Your task to perform on an android device: View the shopping cart on costco.com. Search for razer kraken on costco.com, select the first entry, add it to the cart, then select checkout. Image 0: 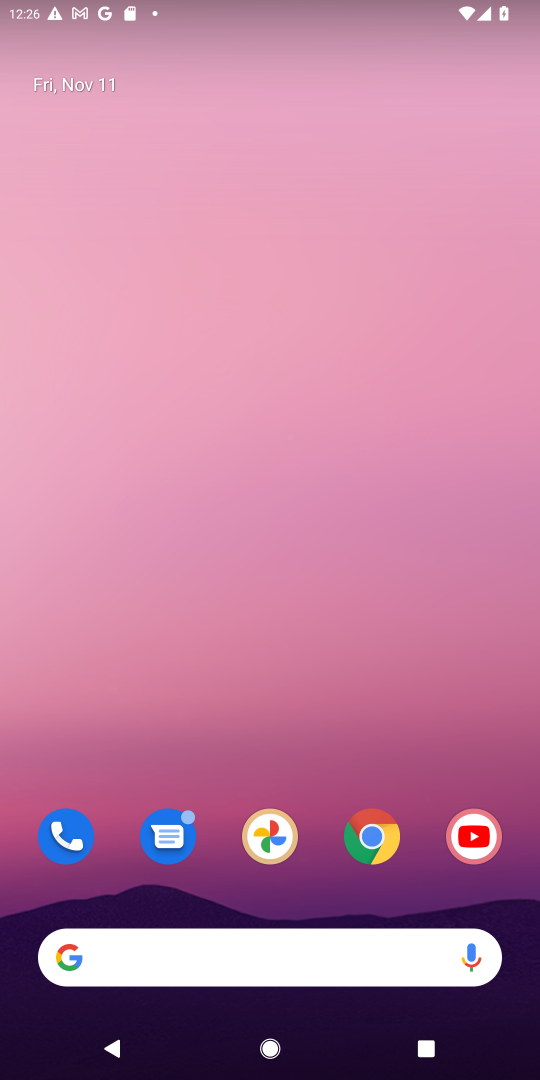
Step 0: click (300, 967)
Your task to perform on an android device: View the shopping cart on costco.com. Search for razer kraken on costco.com, select the first entry, add it to the cart, then select checkout. Image 1: 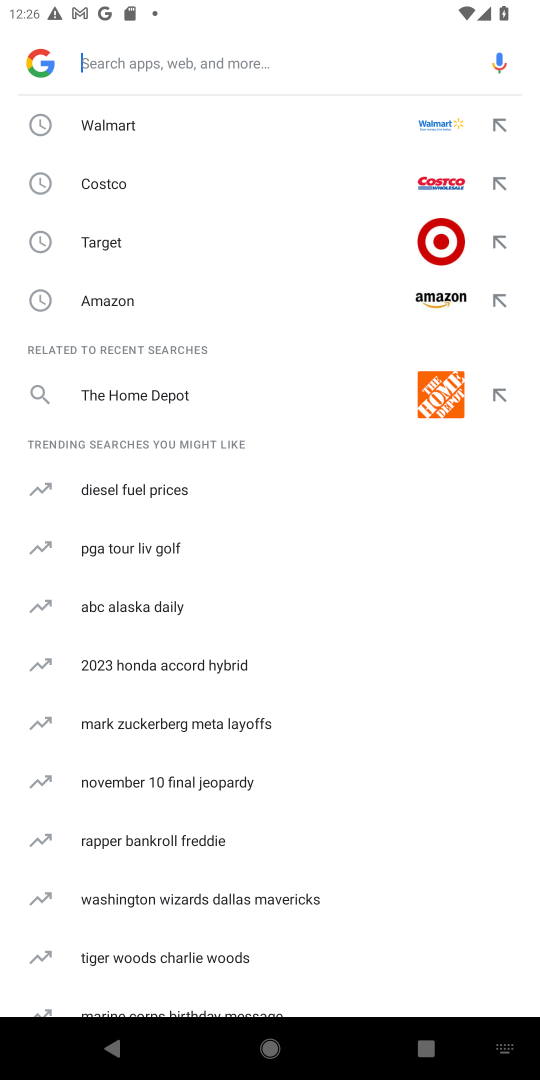
Step 1: click (228, 186)
Your task to perform on an android device: View the shopping cart on costco.com. Search for razer kraken on costco.com, select the first entry, add it to the cart, then select checkout. Image 2: 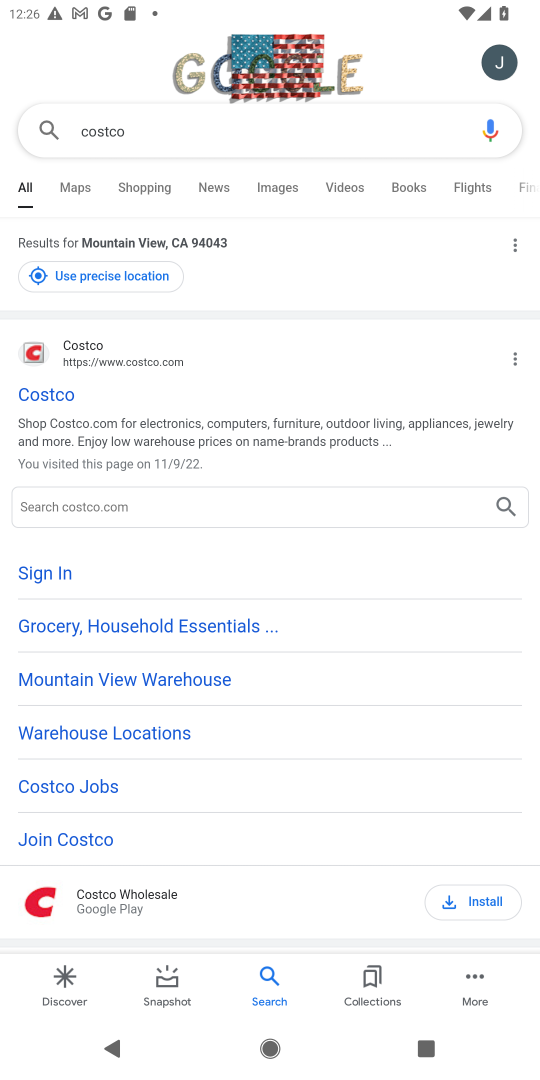
Step 2: click (61, 392)
Your task to perform on an android device: View the shopping cart on costco.com. Search for razer kraken on costco.com, select the first entry, add it to the cart, then select checkout. Image 3: 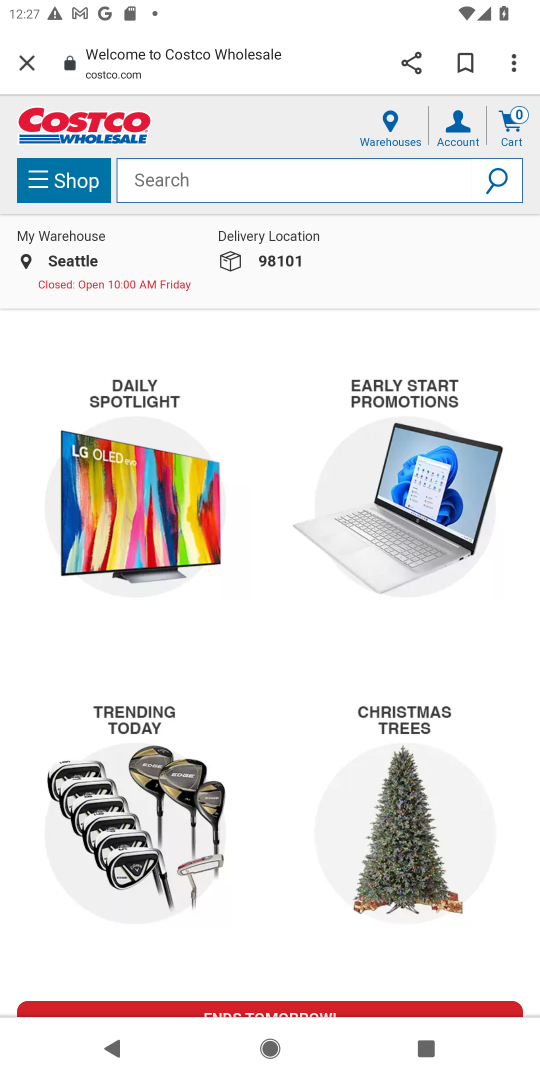
Step 3: click (504, 125)
Your task to perform on an android device: View the shopping cart on costco.com. Search for razer kraken on costco.com, select the first entry, add it to the cart, then select checkout. Image 4: 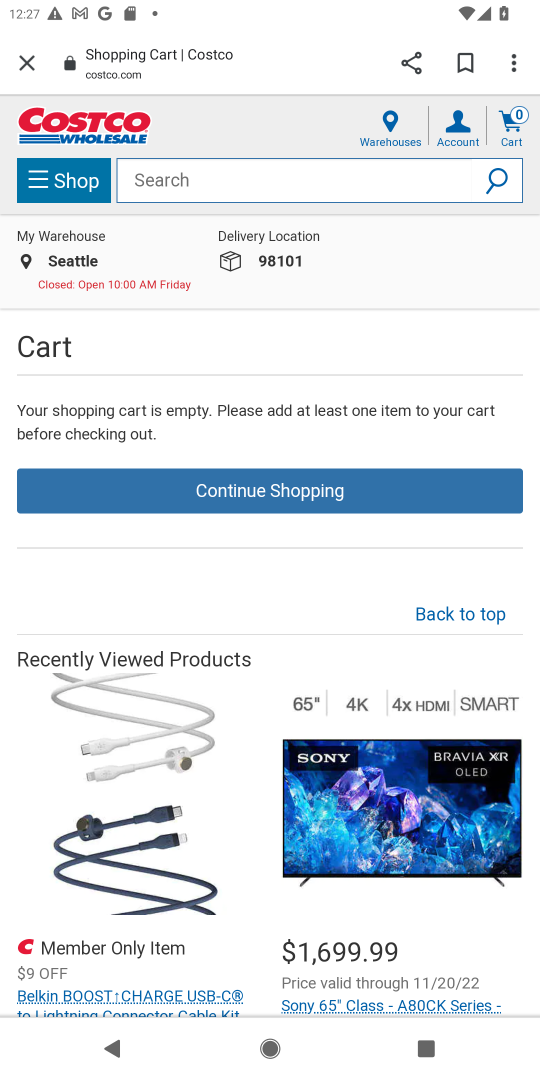
Step 4: click (391, 178)
Your task to perform on an android device: View the shopping cart on costco.com. Search for razer kraken on costco.com, select the first entry, add it to the cart, then select checkout. Image 5: 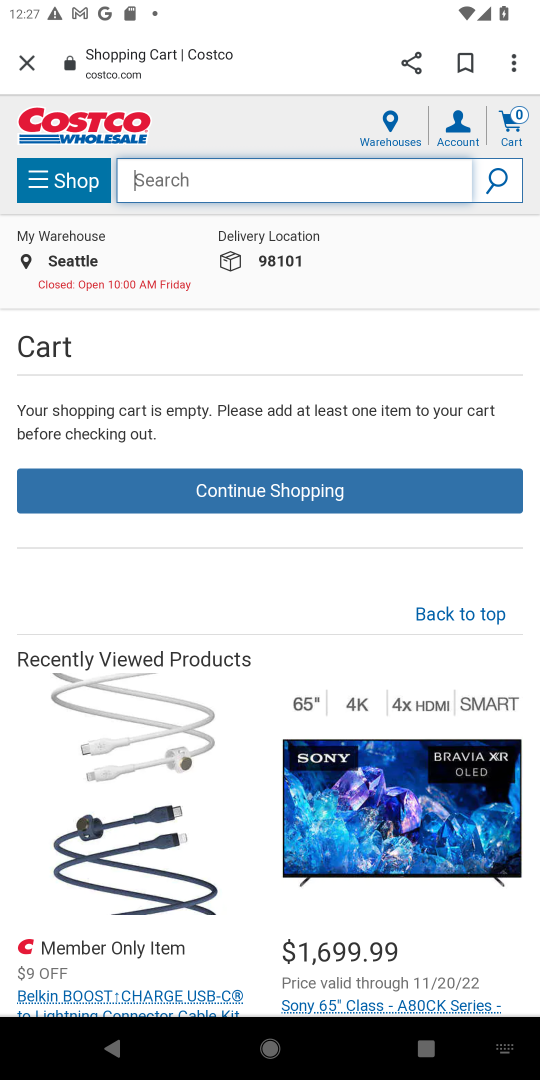
Step 5: click (303, 167)
Your task to perform on an android device: View the shopping cart on costco.com. Search for razer kraken on costco.com, select the first entry, add it to the cart, then select checkout. Image 6: 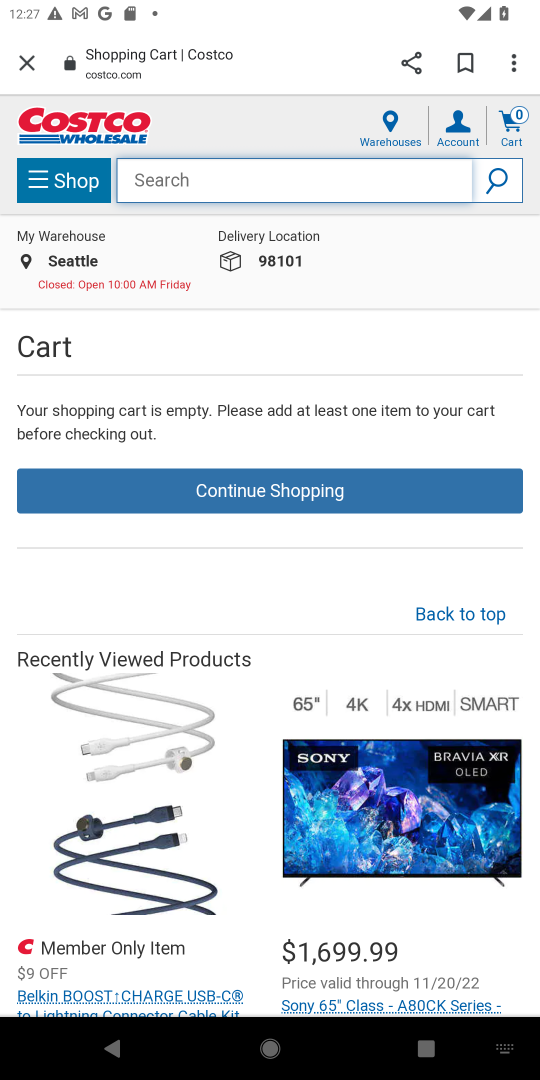
Step 6: type "razer kraken"
Your task to perform on an android device: View the shopping cart on costco.com. Search for razer kraken on costco.com, select the first entry, add it to the cart, then select checkout. Image 7: 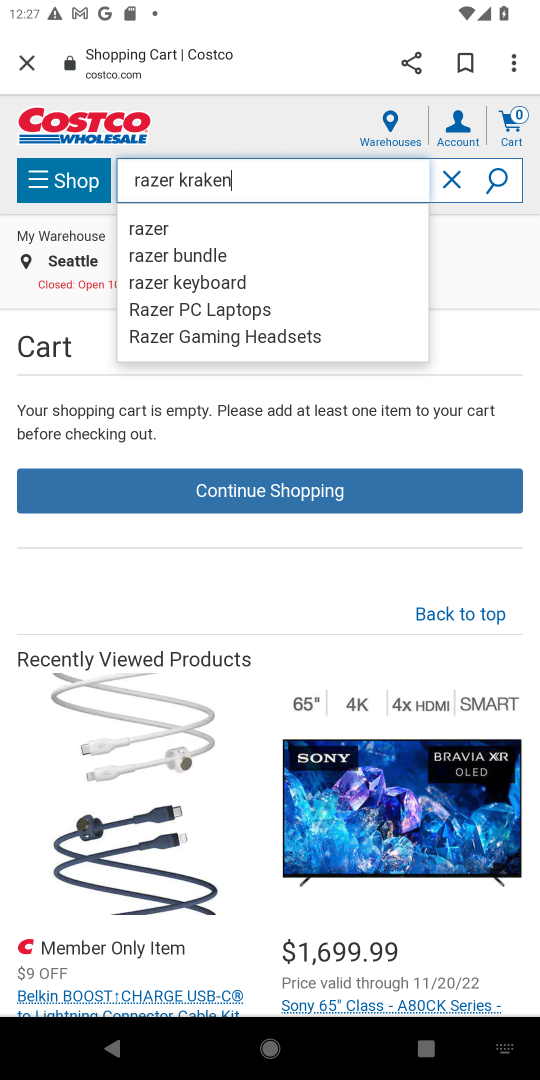
Step 7: click (149, 233)
Your task to perform on an android device: View the shopping cart on costco.com. Search for razer kraken on costco.com, select the first entry, add it to the cart, then select checkout. Image 8: 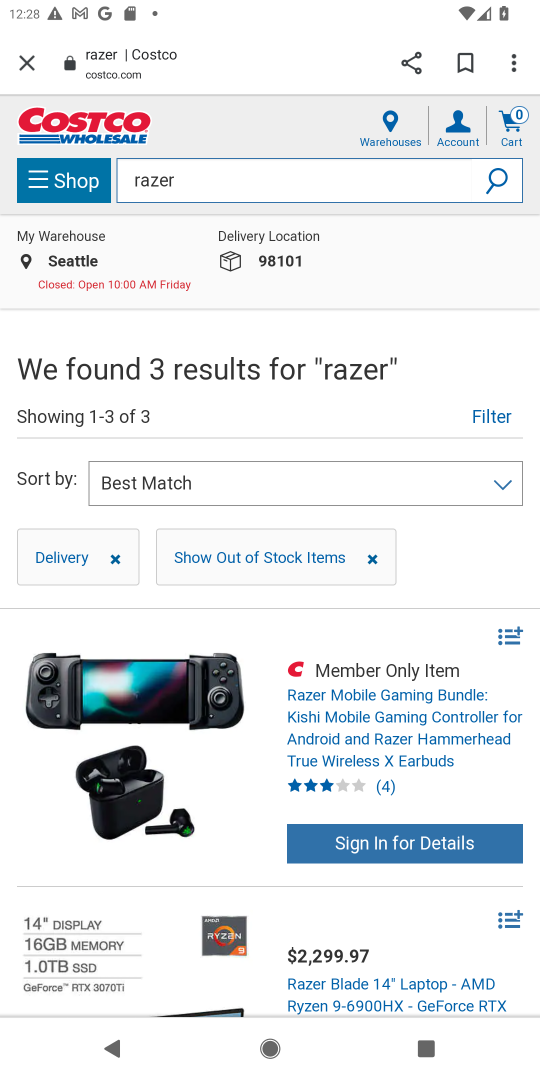
Step 8: drag from (282, 762) to (284, 611)
Your task to perform on an android device: View the shopping cart on costco.com. Search for razer kraken on costco.com, select the first entry, add it to the cart, then select checkout. Image 9: 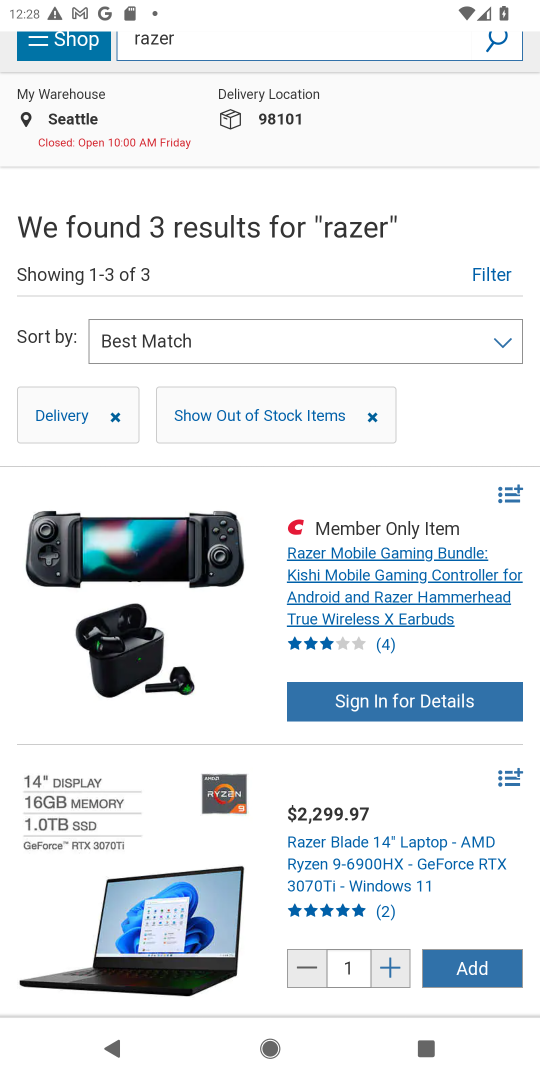
Step 9: click (474, 978)
Your task to perform on an android device: View the shopping cart on costco.com. Search for razer kraken on costco.com, select the first entry, add it to the cart, then select checkout. Image 10: 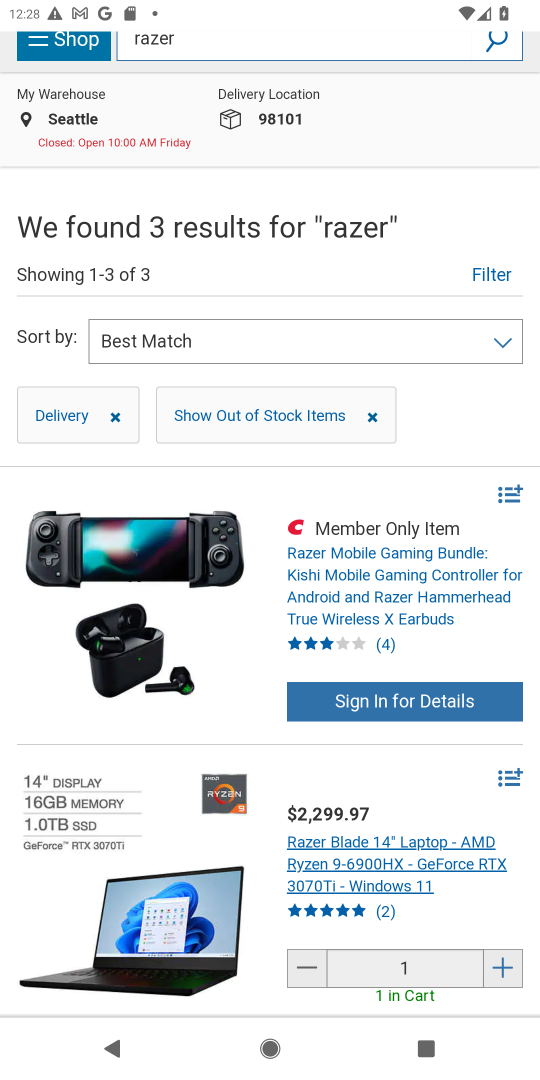
Step 10: drag from (247, 322) to (238, 389)
Your task to perform on an android device: View the shopping cart on costco.com. Search for razer kraken on costco.com, select the first entry, add it to the cart, then select checkout. Image 11: 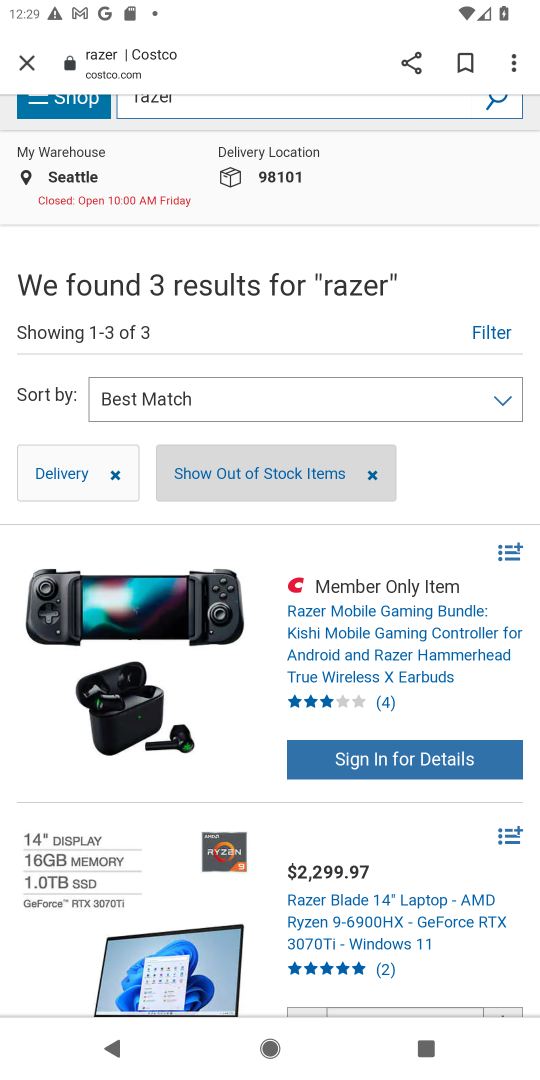
Step 11: click (153, 857)
Your task to perform on an android device: View the shopping cart on costco.com. Search for razer kraken on costco.com, select the first entry, add it to the cart, then select checkout. Image 12: 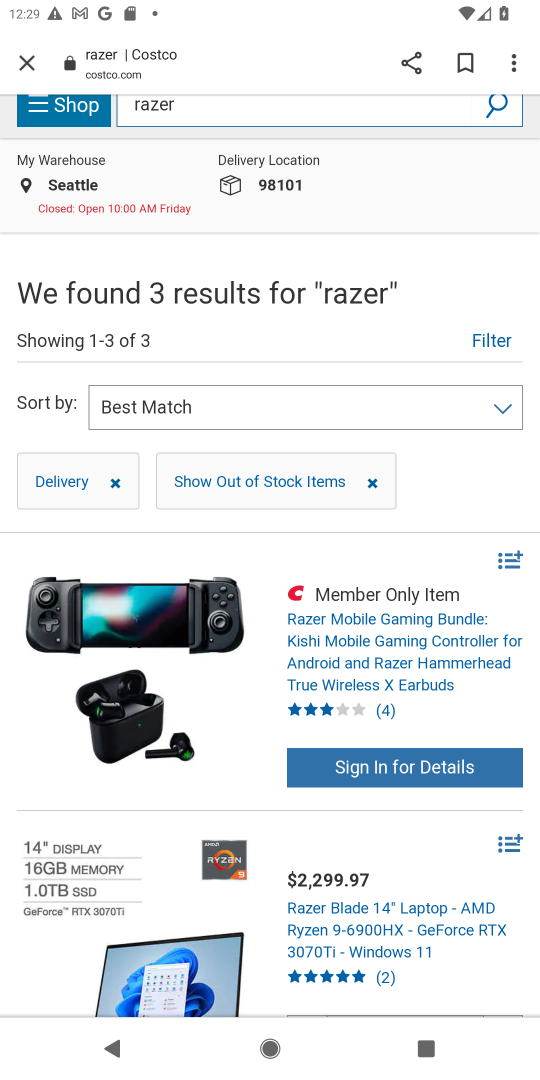
Step 12: drag from (368, 401) to (353, 713)
Your task to perform on an android device: View the shopping cart on costco.com. Search for razer kraken on costco.com, select the first entry, add it to the cart, then select checkout. Image 13: 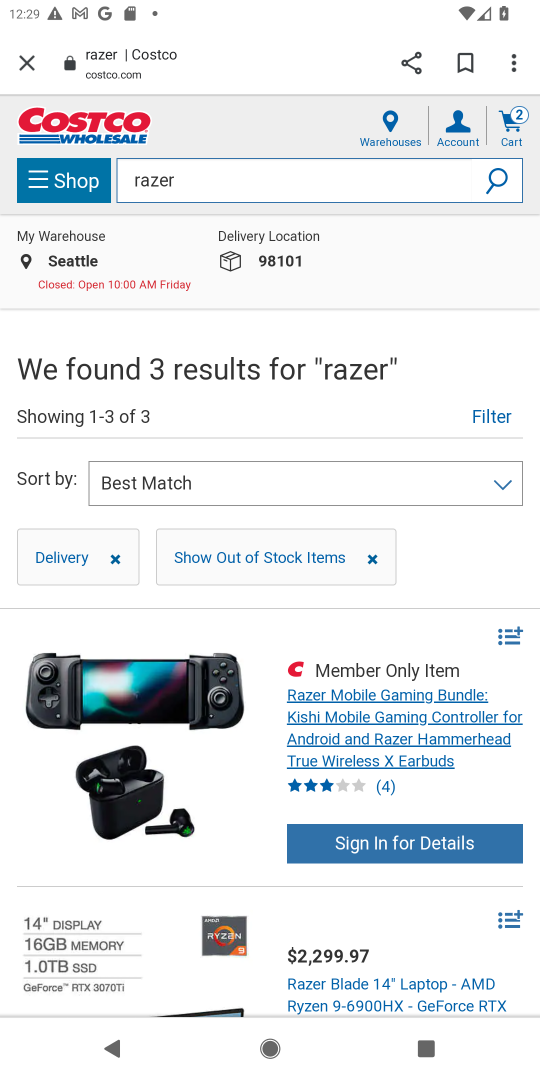
Step 13: click (506, 127)
Your task to perform on an android device: View the shopping cart on costco.com. Search for razer kraken on costco.com, select the first entry, add it to the cart, then select checkout. Image 14: 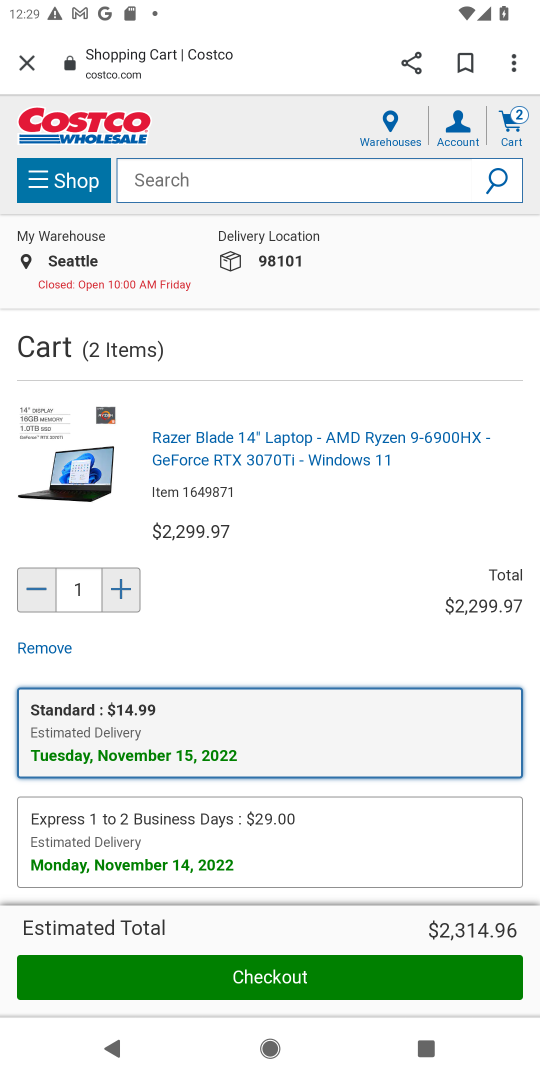
Step 14: click (277, 987)
Your task to perform on an android device: View the shopping cart on costco.com. Search for razer kraken on costco.com, select the first entry, add it to the cart, then select checkout. Image 15: 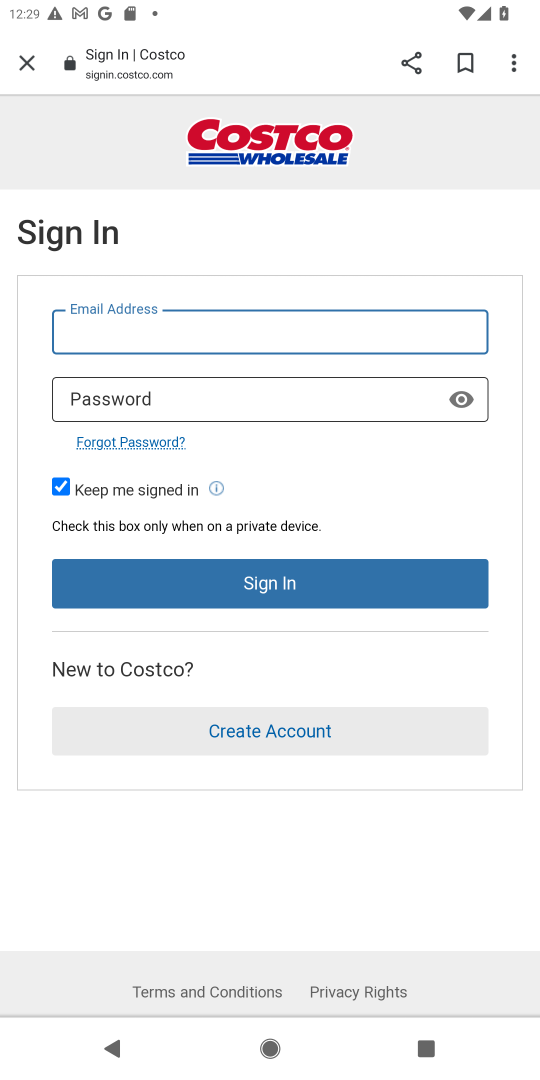
Step 15: task complete